Your task to perform on an android device: Go to Android settings Image 0: 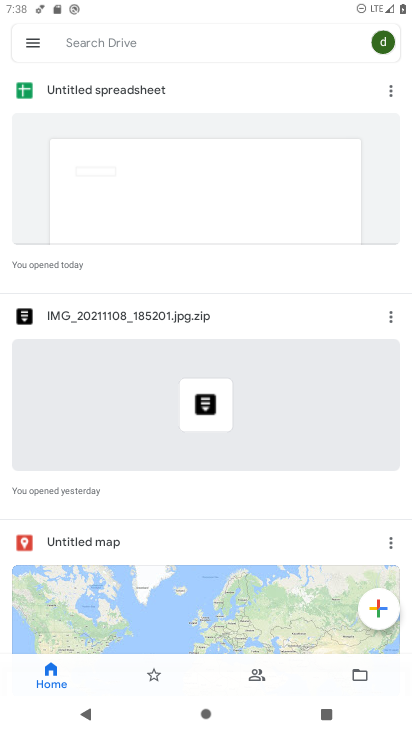
Step 0: press home button
Your task to perform on an android device: Go to Android settings Image 1: 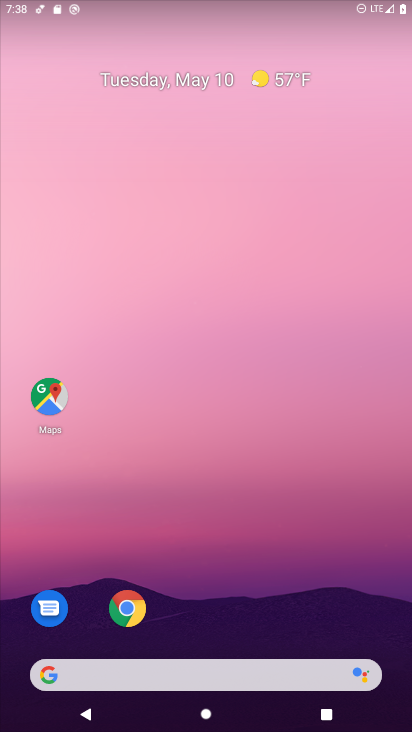
Step 1: drag from (371, 573) to (304, 75)
Your task to perform on an android device: Go to Android settings Image 2: 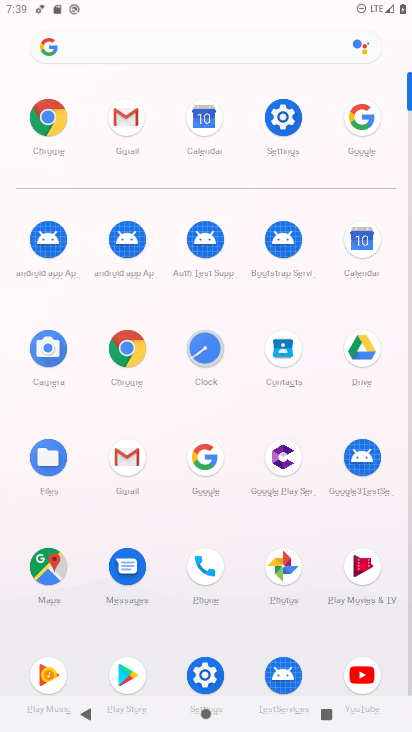
Step 2: click (210, 662)
Your task to perform on an android device: Go to Android settings Image 3: 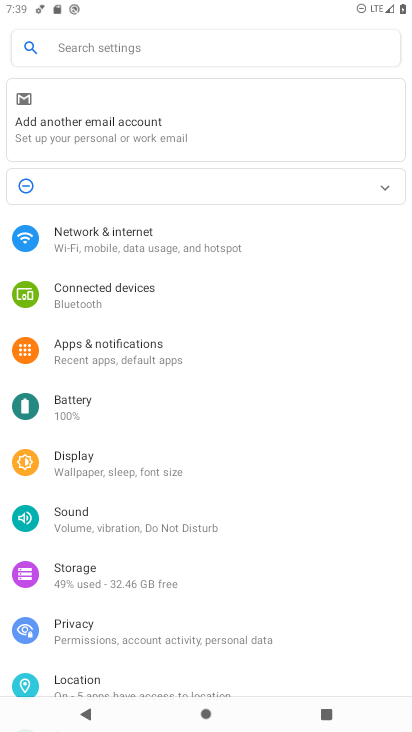
Step 3: drag from (205, 634) to (222, 123)
Your task to perform on an android device: Go to Android settings Image 4: 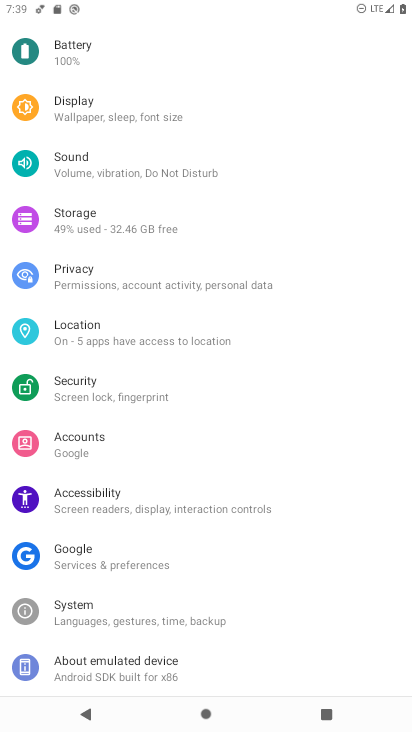
Step 4: click (137, 671)
Your task to perform on an android device: Go to Android settings Image 5: 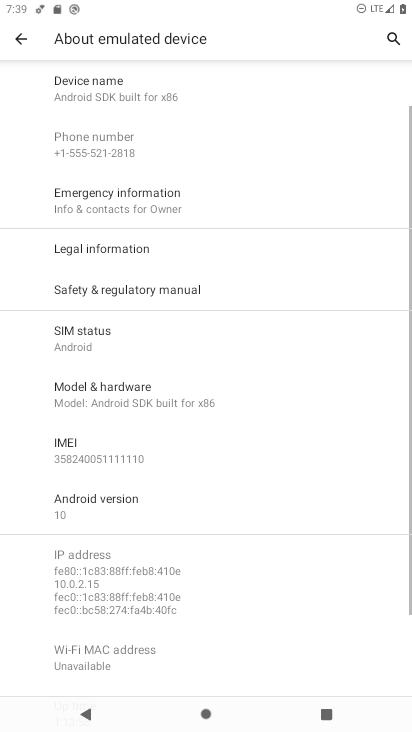
Step 5: click (105, 519)
Your task to perform on an android device: Go to Android settings Image 6: 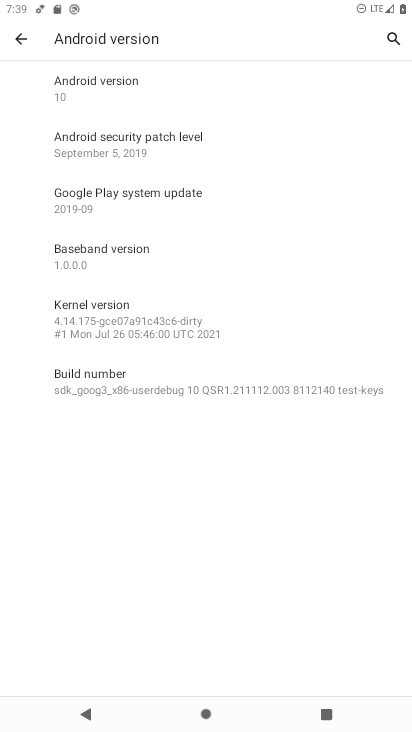
Step 6: task complete